Your task to perform on an android device: Open CNN.com Image 0: 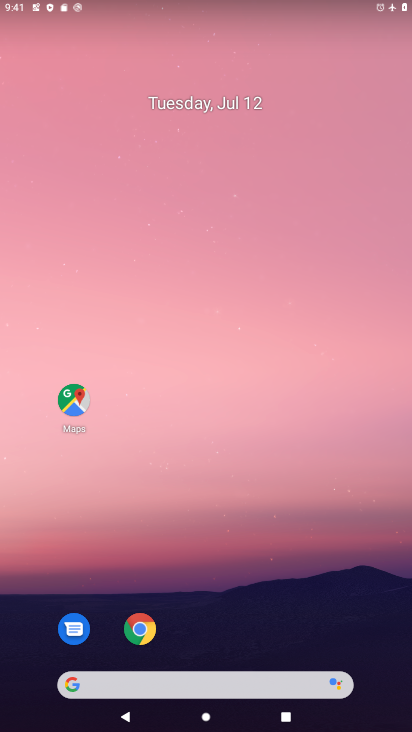
Step 0: click (153, 625)
Your task to perform on an android device: Open CNN.com Image 1: 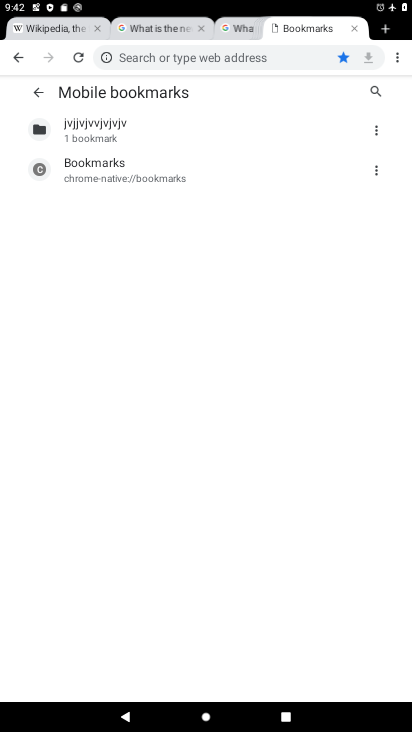
Step 1: click (393, 56)
Your task to perform on an android device: Open CNN.com Image 2: 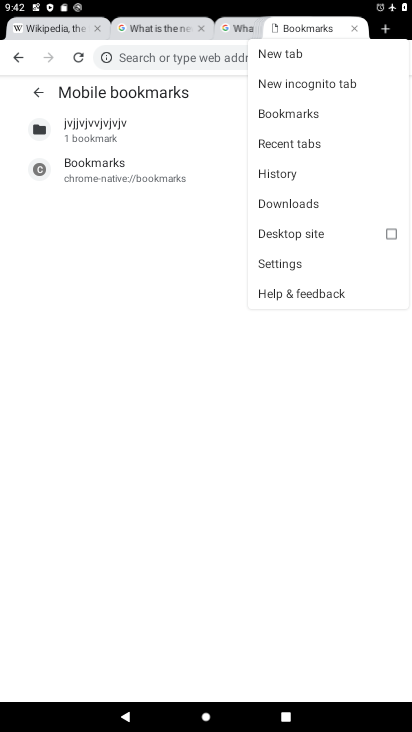
Step 2: click (303, 59)
Your task to perform on an android device: Open CNN.com Image 3: 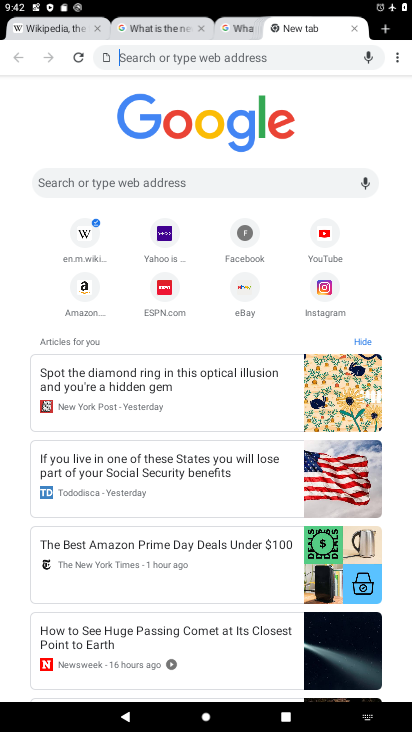
Step 3: click (143, 171)
Your task to perform on an android device: Open CNN.com Image 4: 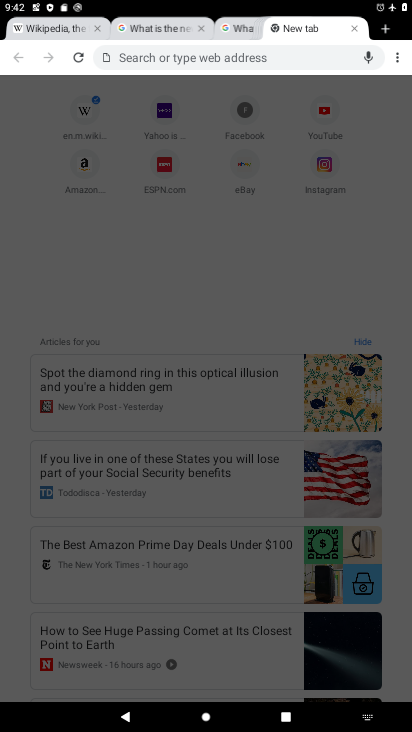
Step 4: type "CNN.com "
Your task to perform on an android device: Open CNN.com Image 5: 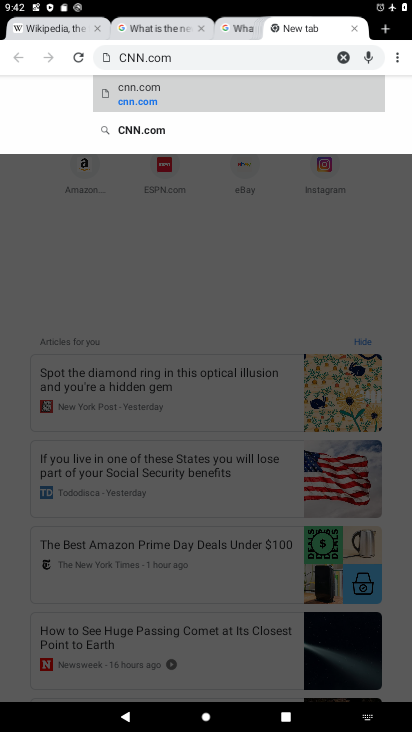
Step 5: click (147, 93)
Your task to perform on an android device: Open CNN.com Image 6: 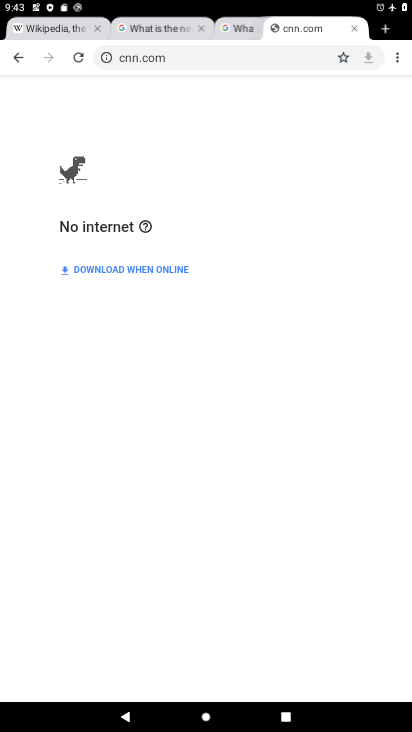
Step 6: task complete